Your task to perform on an android device: Open maps Image 0: 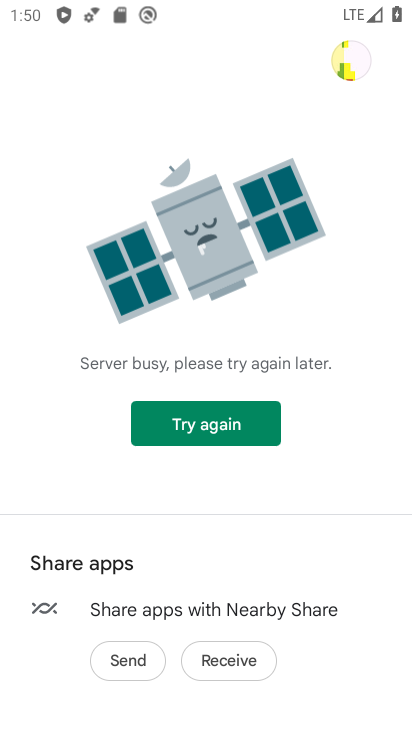
Step 0: press home button
Your task to perform on an android device: Open maps Image 1: 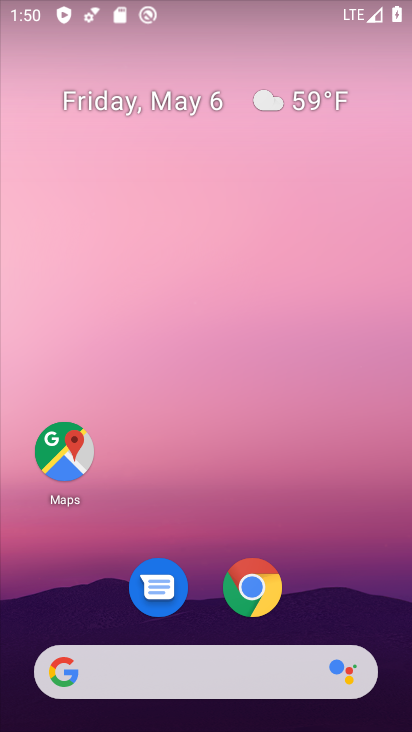
Step 1: drag from (381, 526) to (407, 108)
Your task to perform on an android device: Open maps Image 2: 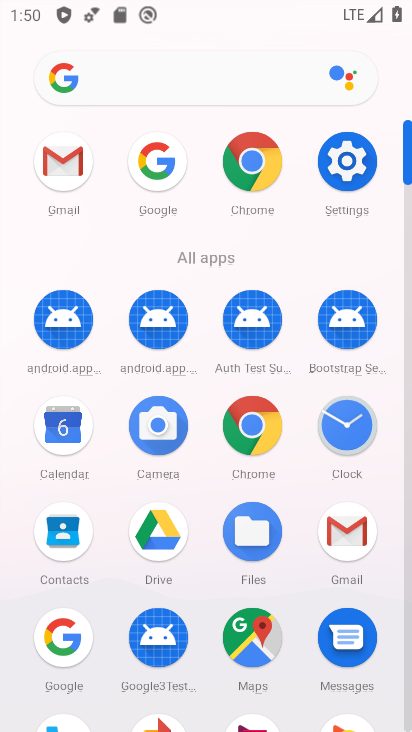
Step 2: click (265, 625)
Your task to perform on an android device: Open maps Image 3: 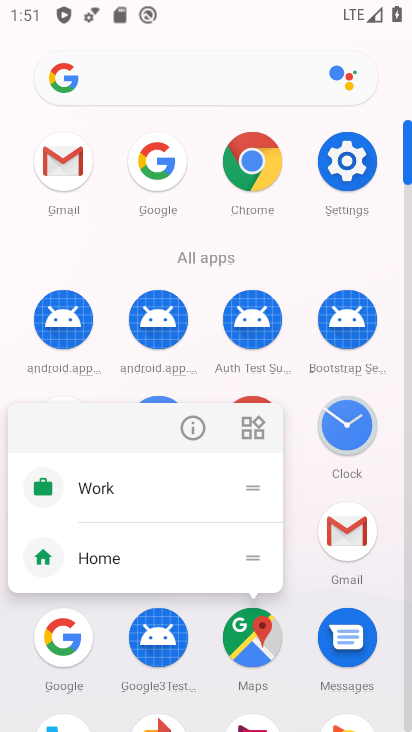
Step 3: click (390, 268)
Your task to perform on an android device: Open maps Image 4: 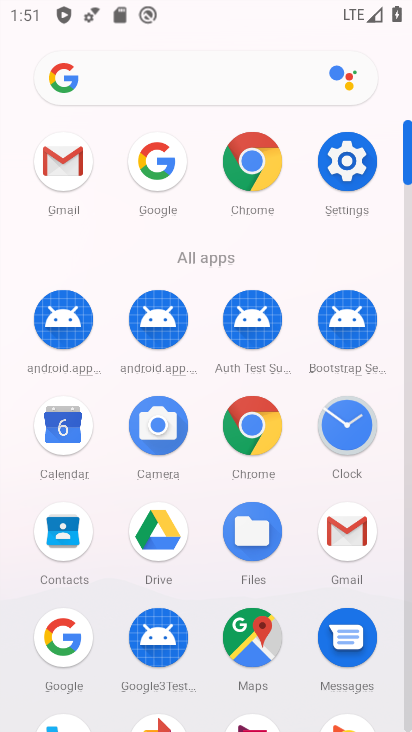
Step 4: click (257, 621)
Your task to perform on an android device: Open maps Image 5: 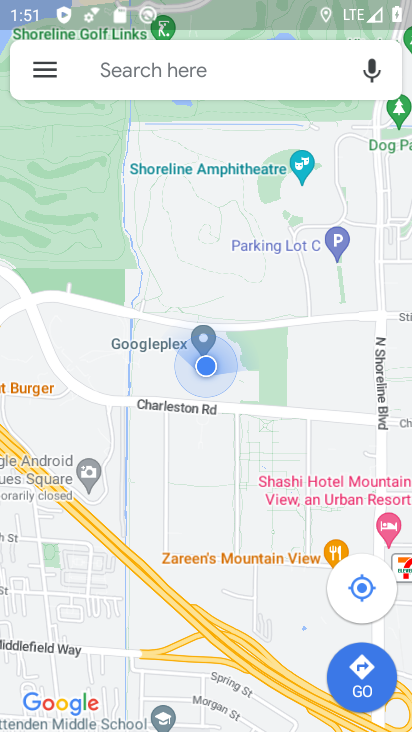
Step 5: task complete